Your task to perform on an android device: Open network settings Image 0: 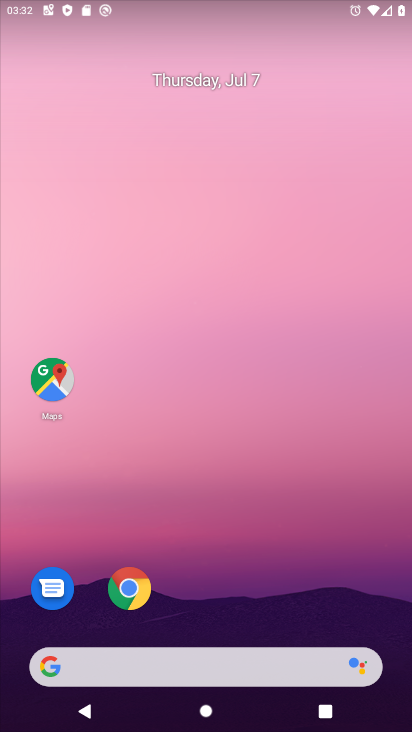
Step 0: drag from (228, 501) to (257, 201)
Your task to perform on an android device: Open network settings Image 1: 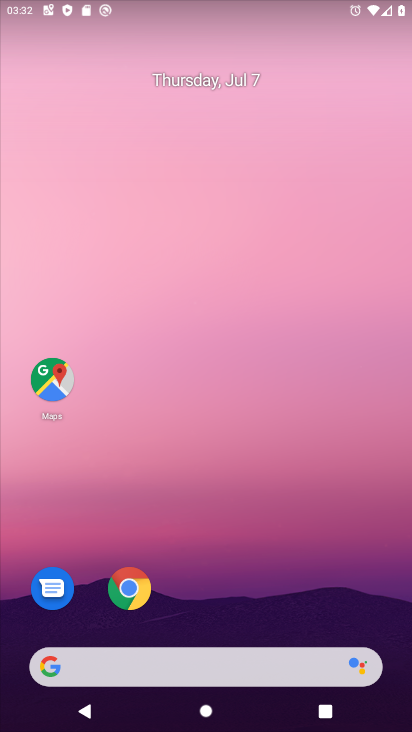
Step 1: drag from (232, 651) to (262, 169)
Your task to perform on an android device: Open network settings Image 2: 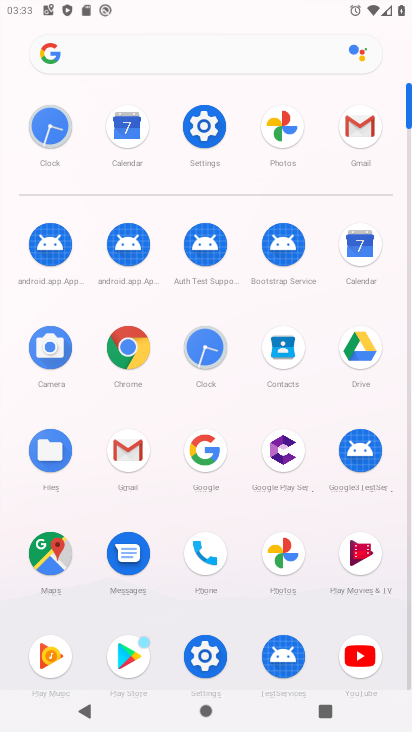
Step 2: click (213, 130)
Your task to perform on an android device: Open network settings Image 3: 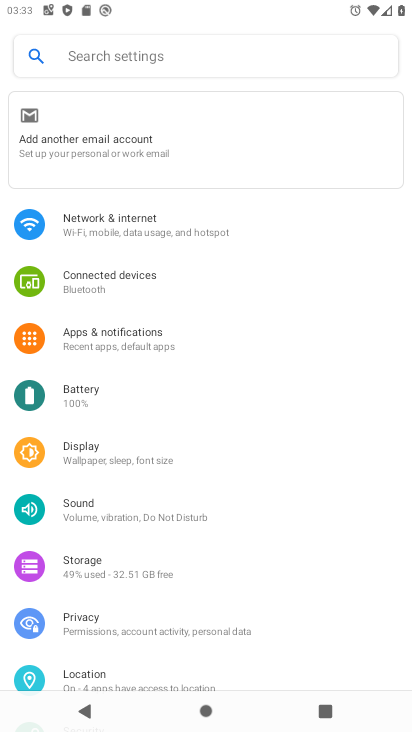
Step 3: click (92, 230)
Your task to perform on an android device: Open network settings Image 4: 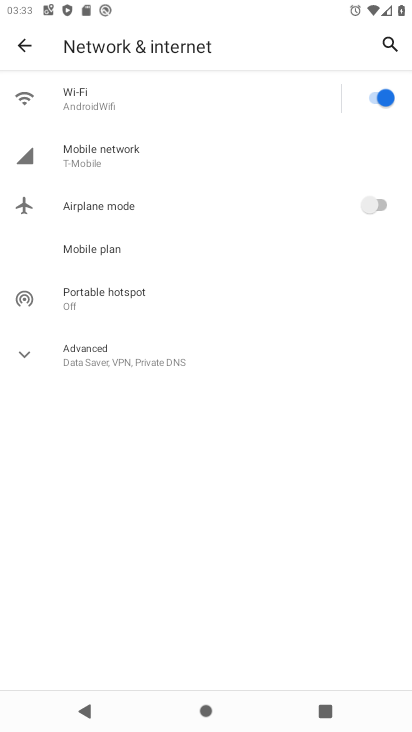
Step 4: click (110, 363)
Your task to perform on an android device: Open network settings Image 5: 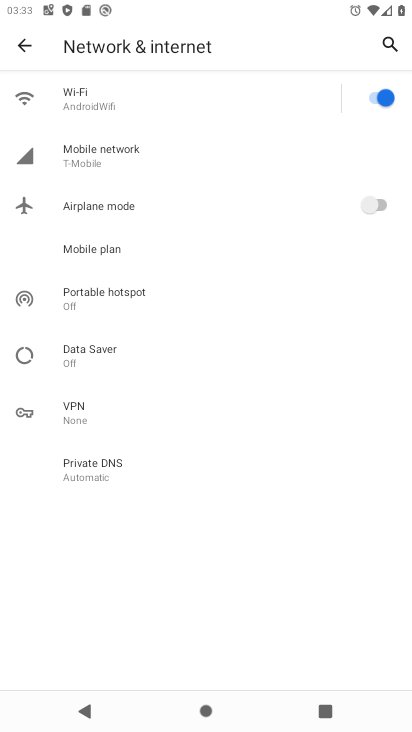
Step 5: task complete